Your task to perform on an android device: open app "AliExpress" (install if not already installed) Image 0: 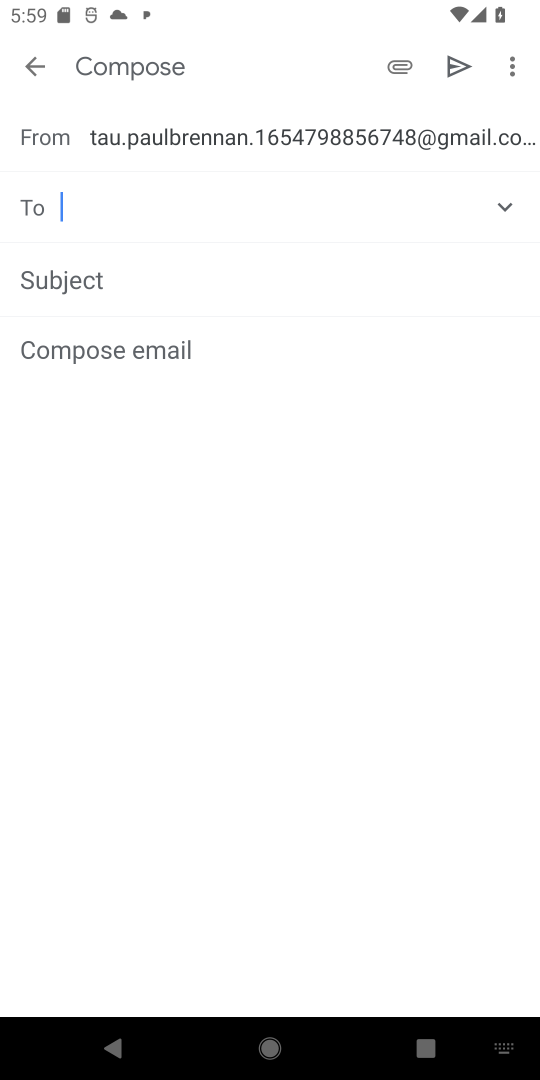
Step 0: press home button
Your task to perform on an android device: open app "AliExpress" (install if not already installed) Image 1: 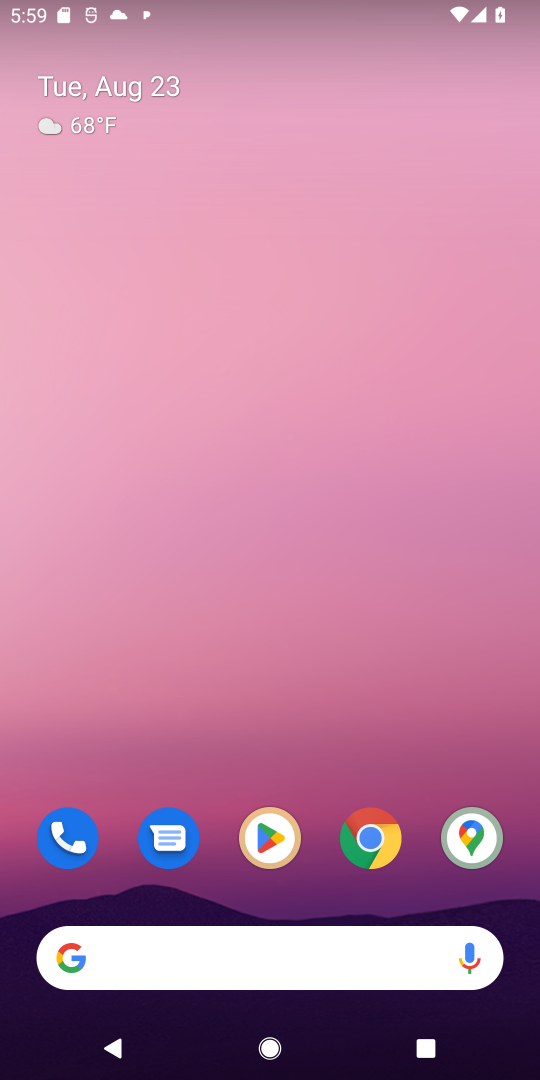
Step 1: click (277, 845)
Your task to perform on an android device: open app "AliExpress" (install if not already installed) Image 2: 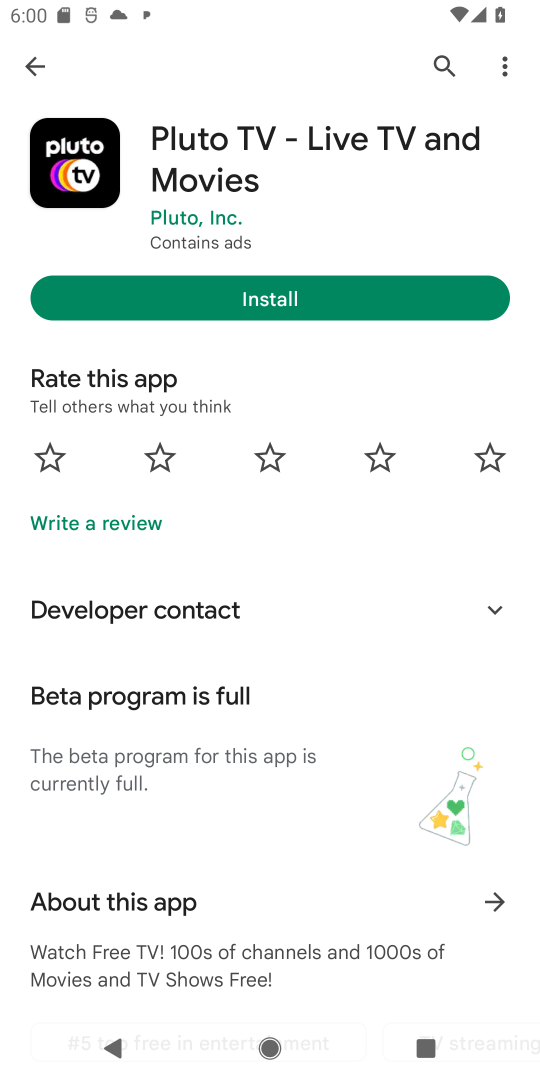
Step 2: click (439, 57)
Your task to perform on an android device: open app "AliExpress" (install if not already installed) Image 3: 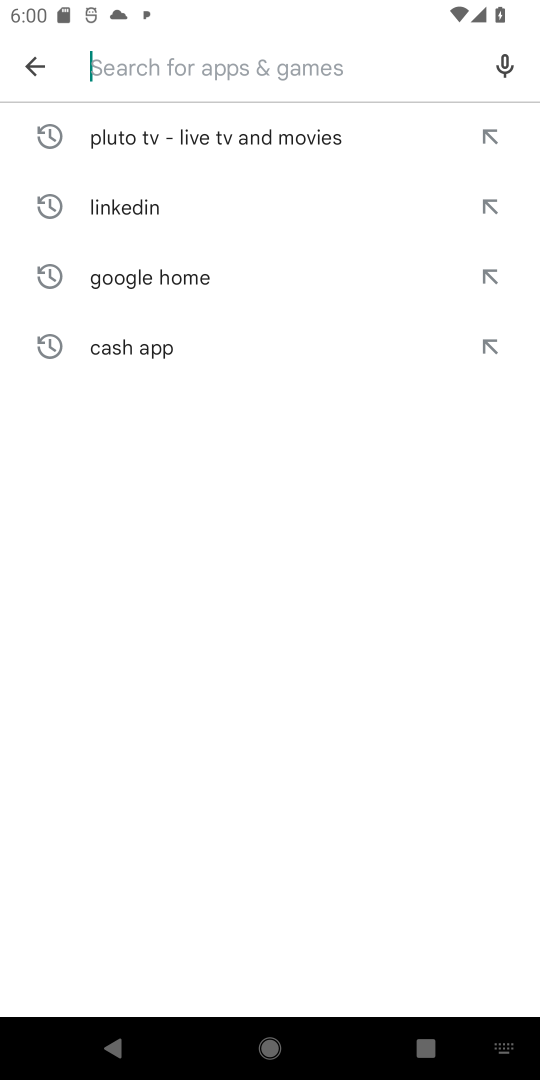
Step 3: type "AliExpress"
Your task to perform on an android device: open app "AliExpress" (install if not already installed) Image 4: 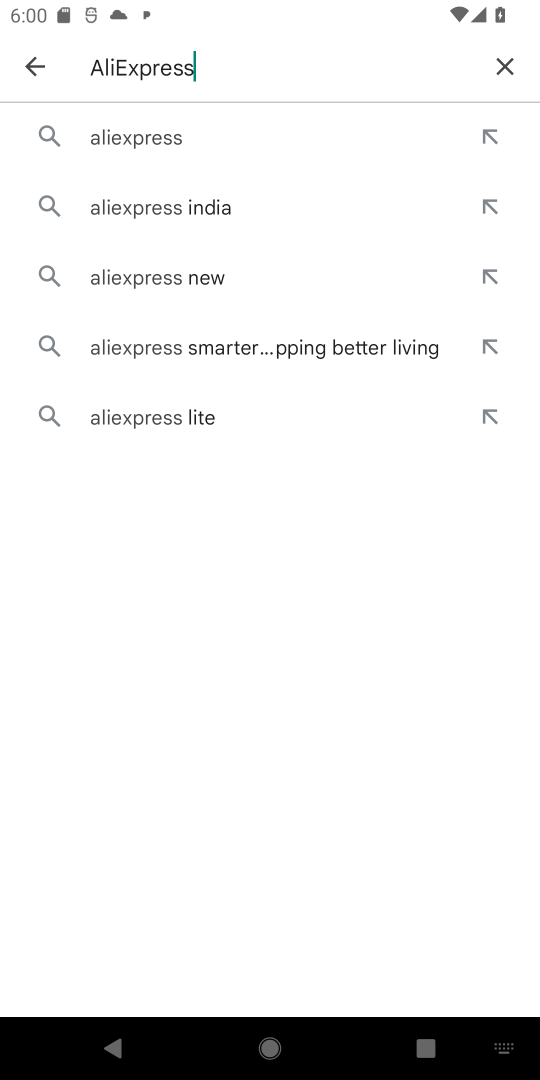
Step 4: click (144, 130)
Your task to perform on an android device: open app "AliExpress" (install if not already installed) Image 5: 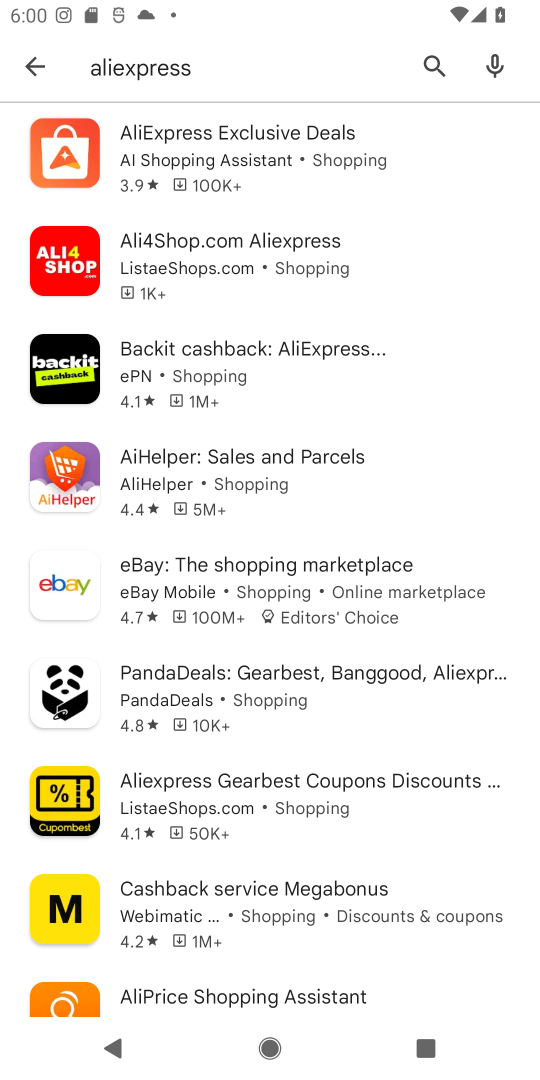
Step 5: click (156, 141)
Your task to perform on an android device: open app "AliExpress" (install if not already installed) Image 6: 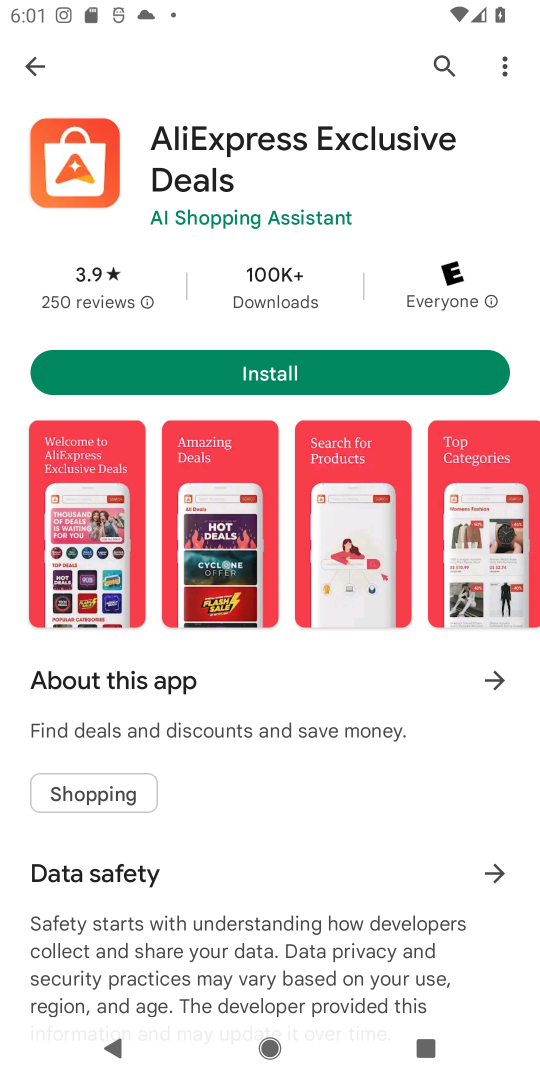
Step 6: click (309, 371)
Your task to perform on an android device: open app "AliExpress" (install if not already installed) Image 7: 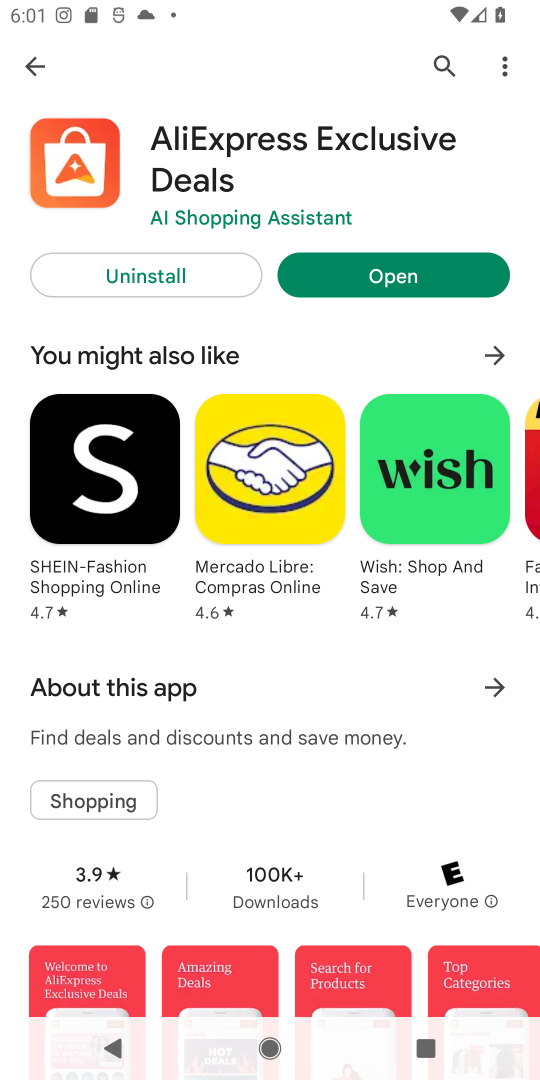
Step 7: click (392, 274)
Your task to perform on an android device: open app "AliExpress" (install if not already installed) Image 8: 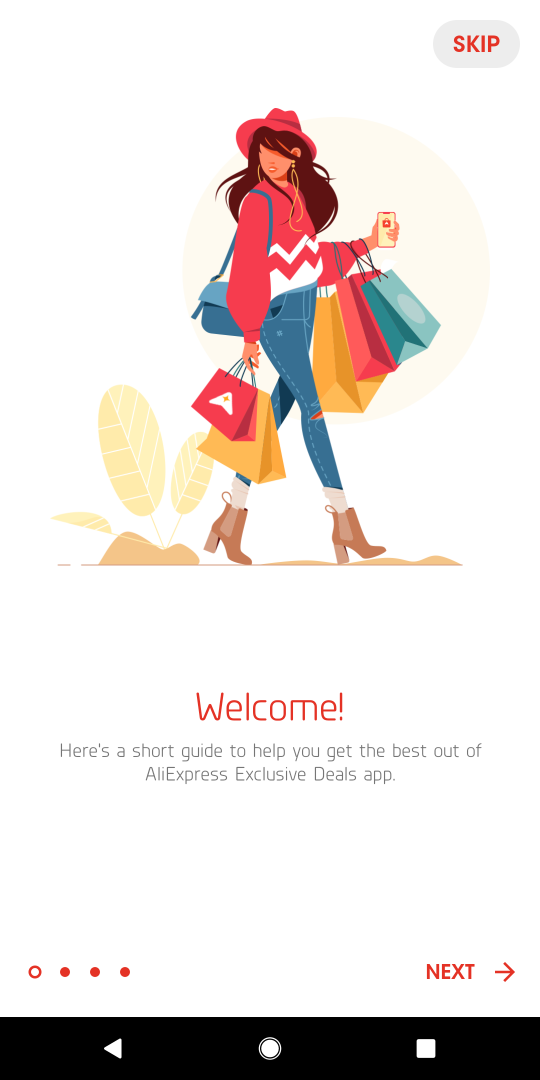
Step 8: task complete